Your task to perform on an android device: check the backup settings in the google photos Image 0: 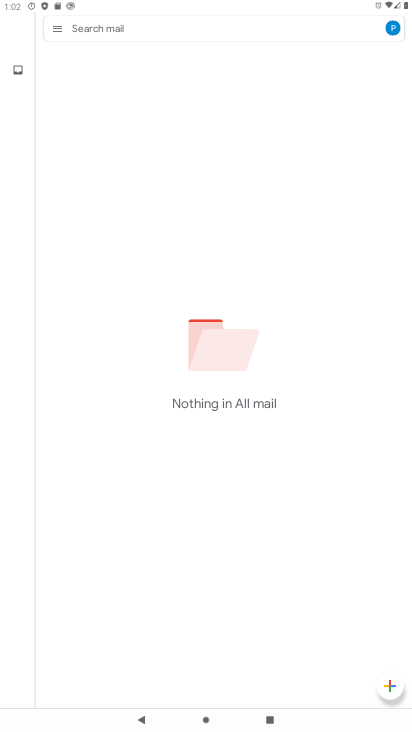
Step 0: press home button
Your task to perform on an android device: check the backup settings in the google photos Image 1: 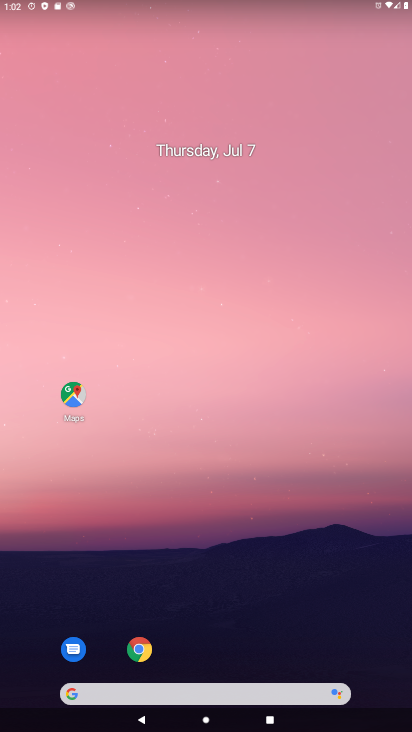
Step 1: drag from (213, 673) to (142, 388)
Your task to perform on an android device: check the backup settings in the google photos Image 2: 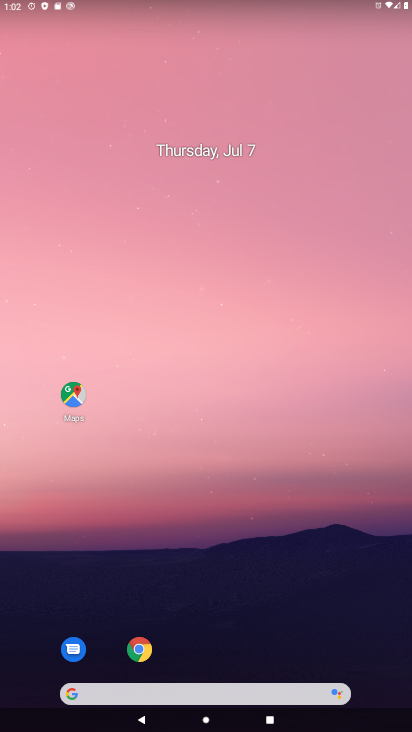
Step 2: drag from (195, 656) to (104, 40)
Your task to perform on an android device: check the backup settings in the google photos Image 3: 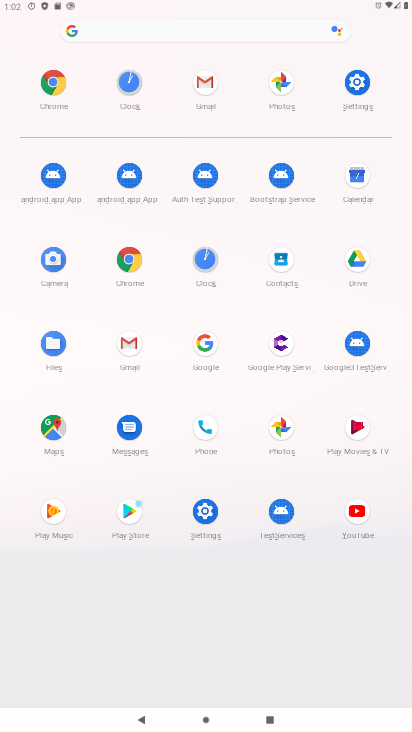
Step 3: click (272, 431)
Your task to perform on an android device: check the backup settings in the google photos Image 4: 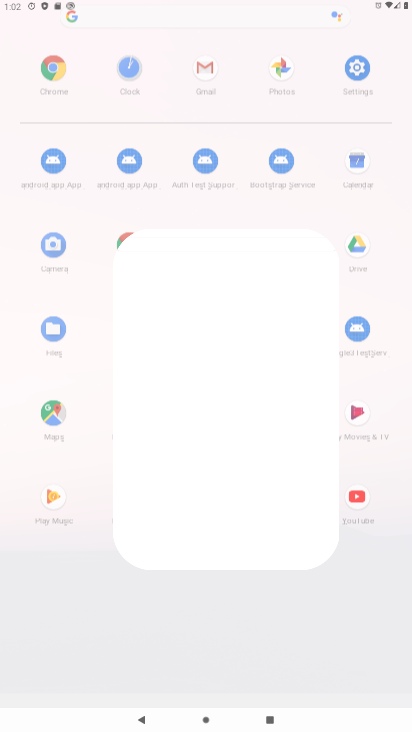
Step 4: click (272, 431)
Your task to perform on an android device: check the backup settings in the google photos Image 5: 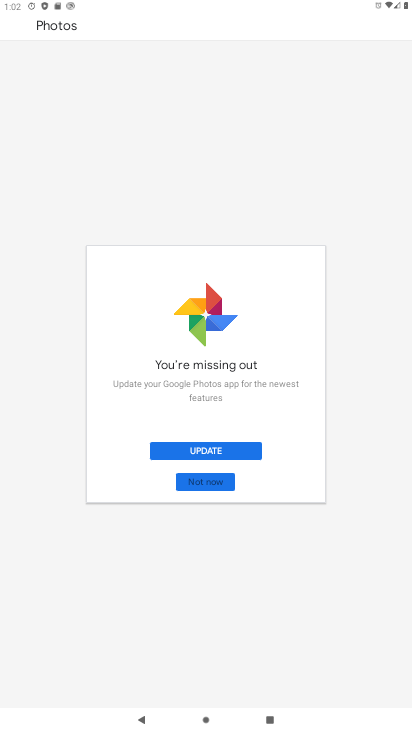
Step 5: click (192, 478)
Your task to perform on an android device: check the backup settings in the google photos Image 6: 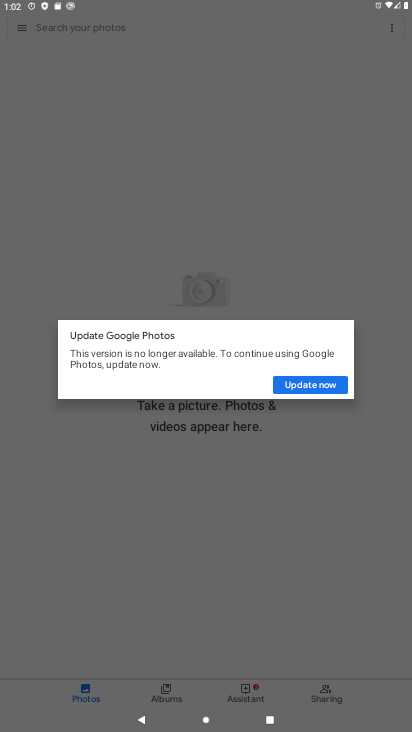
Step 6: click (242, 540)
Your task to perform on an android device: check the backup settings in the google photos Image 7: 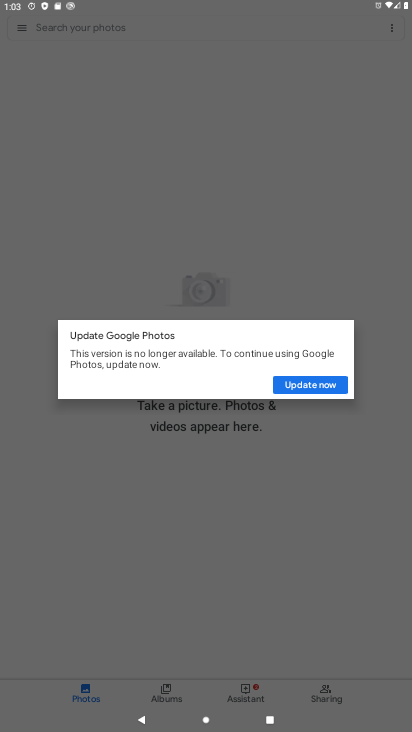
Step 7: click (310, 390)
Your task to perform on an android device: check the backup settings in the google photos Image 8: 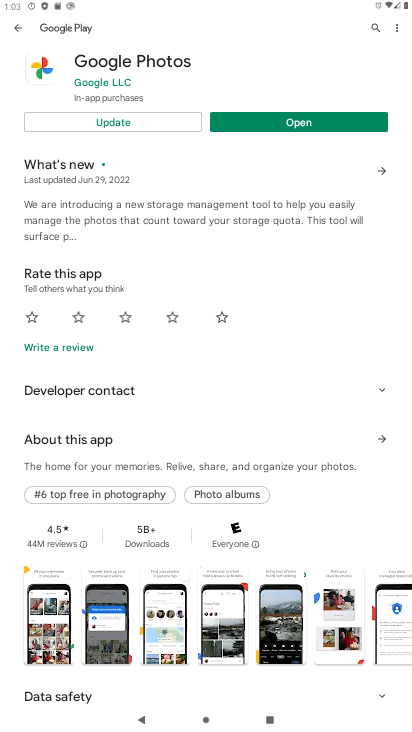
Step 8: click (272, 128)
Your task to perform on an android device: check the backup settings in the google photos Image 9: 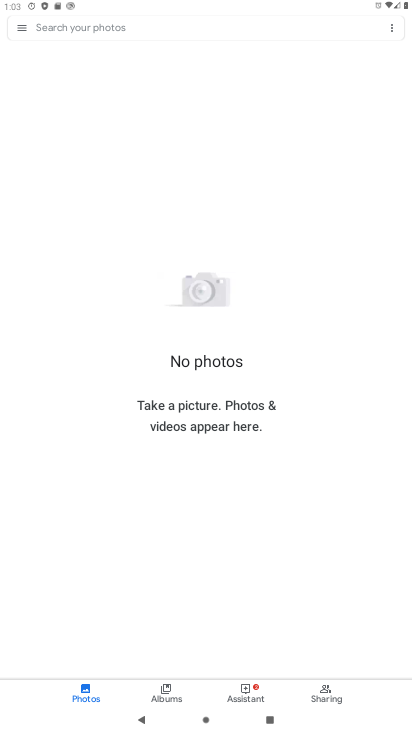
Step 9: click (11, 30)
Your task to perform on an android device: check the backup settings in the google photos Image 10: 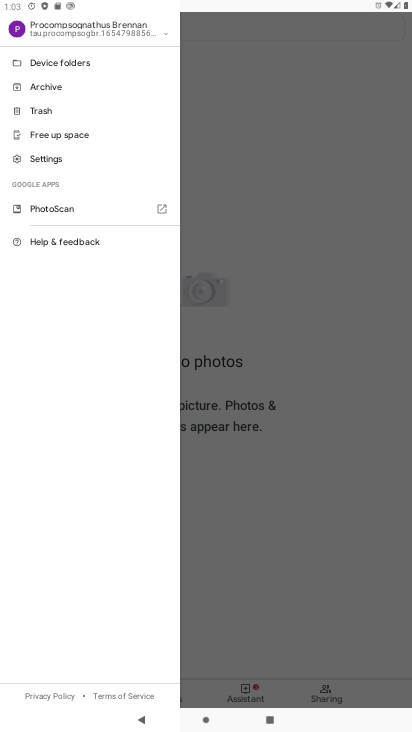
Step 10: click (37, 156)
Your task to perform on an android device: check the backup settings in the google photos Image 11: 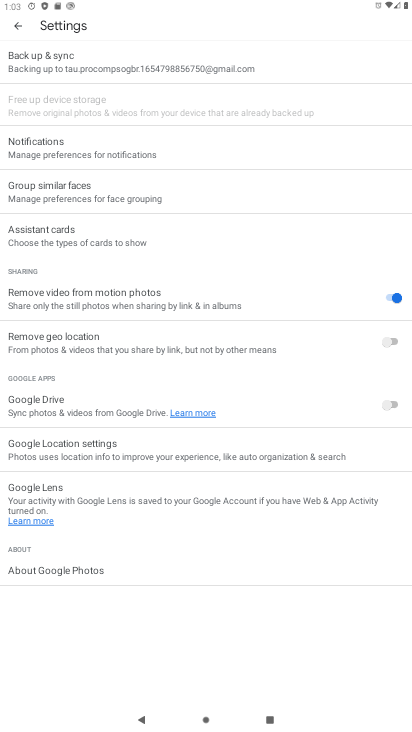
Step 11: click (55, 61)
Your task to perform on an android device: check the backup settings in the google photos Image 12: 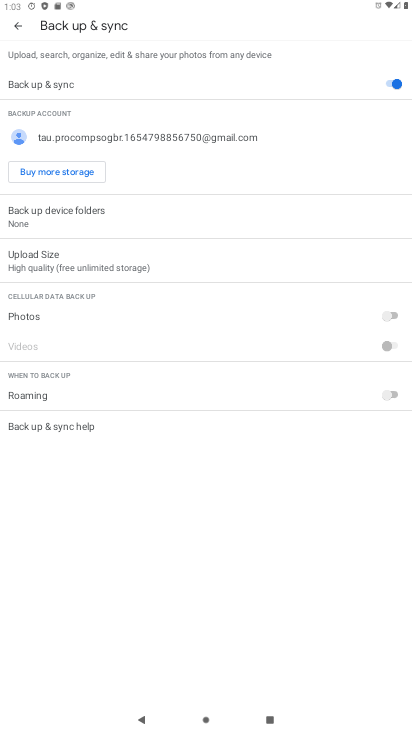
Step 12: task complete